Your task to perform on an android device: Go to sound settings Image 0: 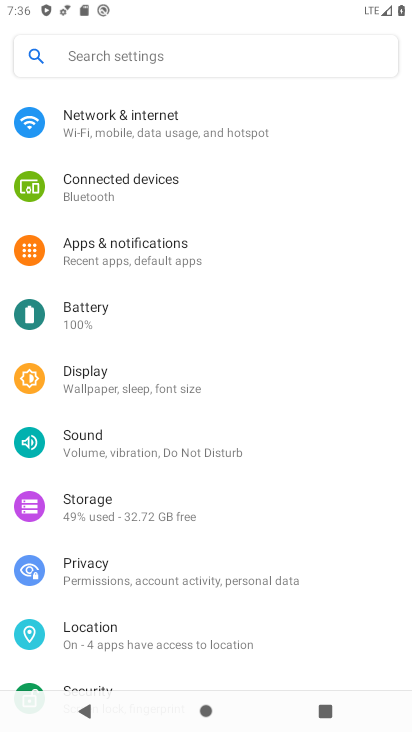
Step 0: click (264, 625)
Your task to perform on an android device: Go to sound settings Image 1: 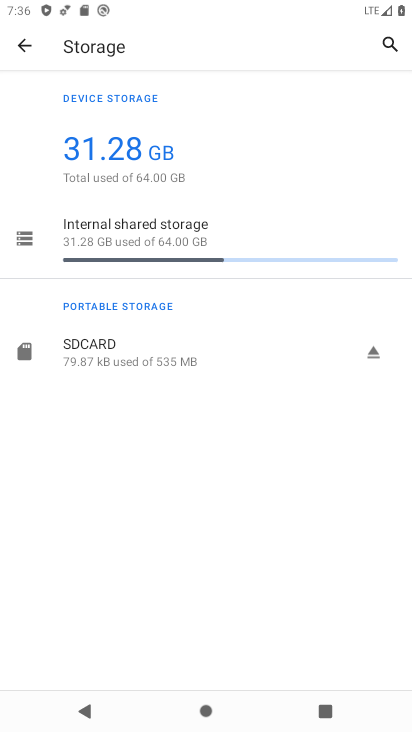
Step 1: press home button
Your task to perform on an android device: Go to sound settings Image 2: 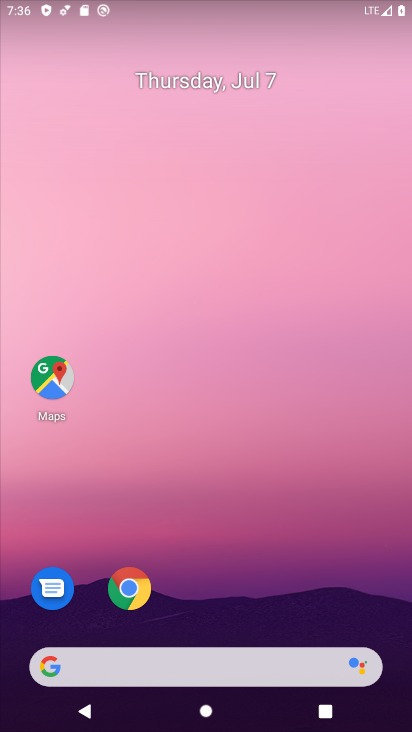
Step 2: drag from (238, 652) to (238, 203)
Your task to perform on an android device: Go to sound settings Image 3: 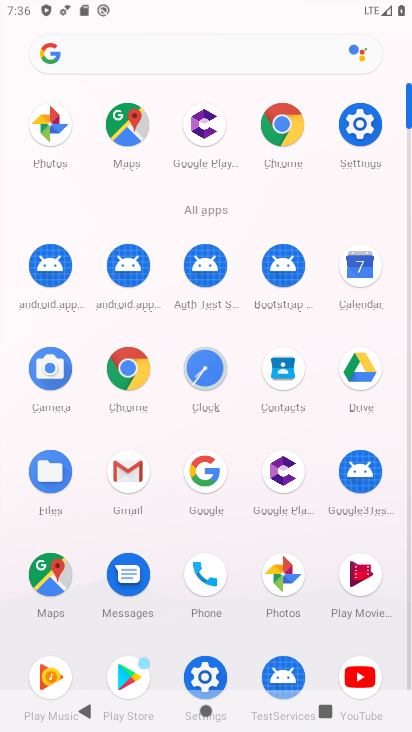
Step 3: click (361, 124)
Your task to perform on an android device: Go to sound settings Image 4: 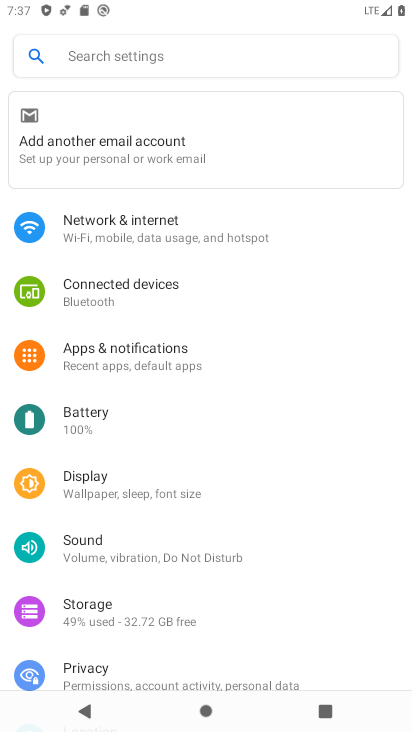
Step 4: click (154, 552)
Your task to perform on an android device: Go to sound settings Image 5: 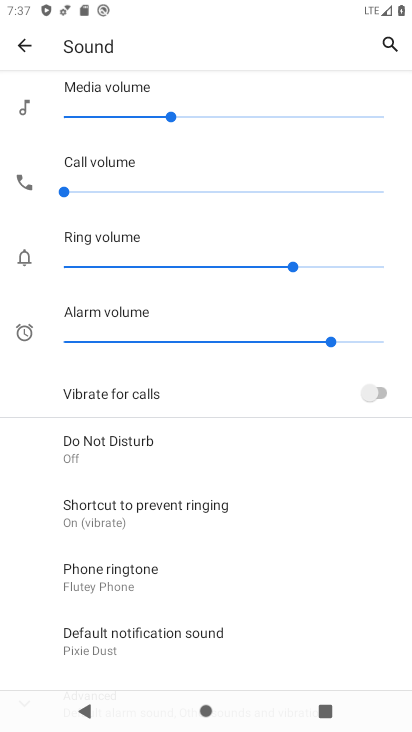
Step 5: task complete